Your task to perform on an android device: open app "Flipkart Online Shopping App" (install if not already installed) and go to login screen Image 0: 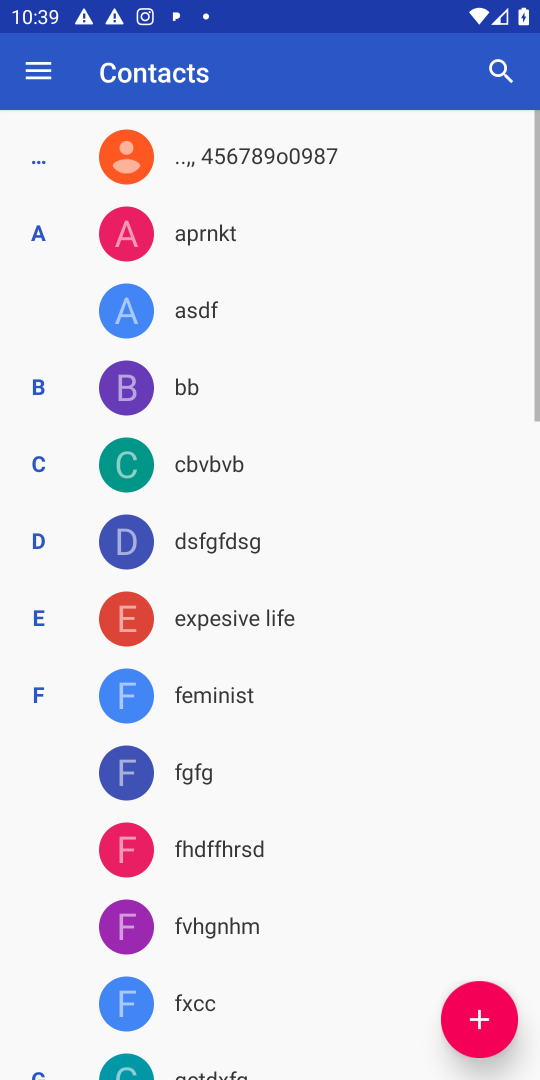
Step 0: press home button
Your task to perform on an android device: open app "Flipkart Online Shopping App" (install if not already installed) and go to login screen Image 1: 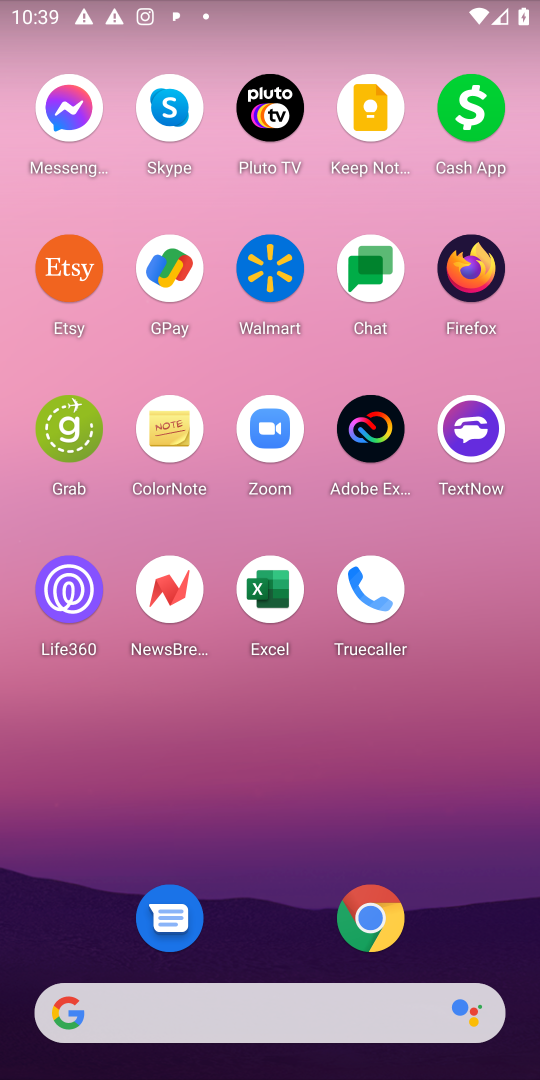
Step 1: press home button
Your task to perform on an android device: open app "Flipkart Online Shopping App" (install if not already installed) and go to login screen Image 2: 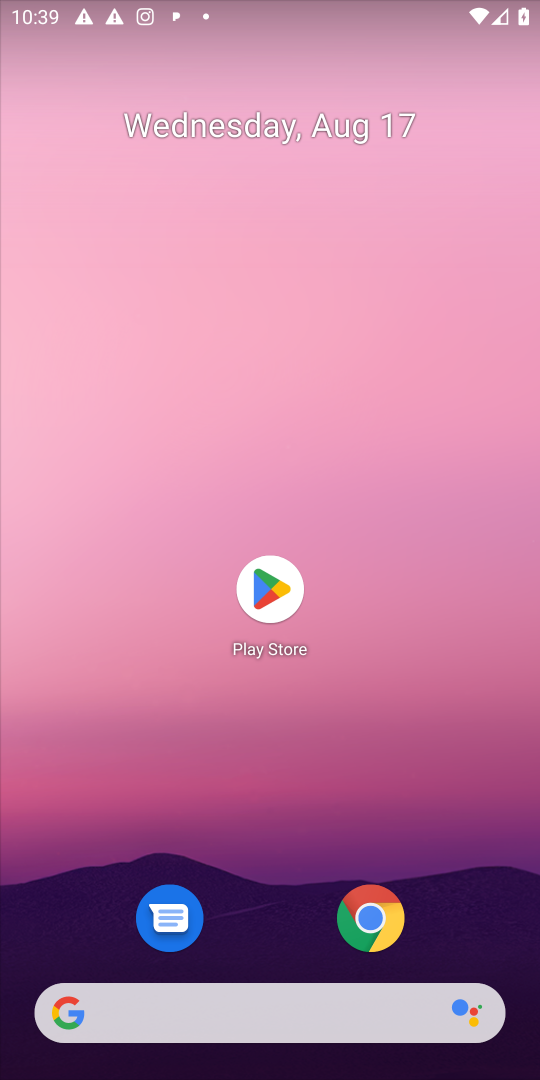
Step 2: click (268, 624)
Your task to perform on an android device: open app "Flipkart Online Shopping App" (install if not already installed) and go to login screen Image 3: 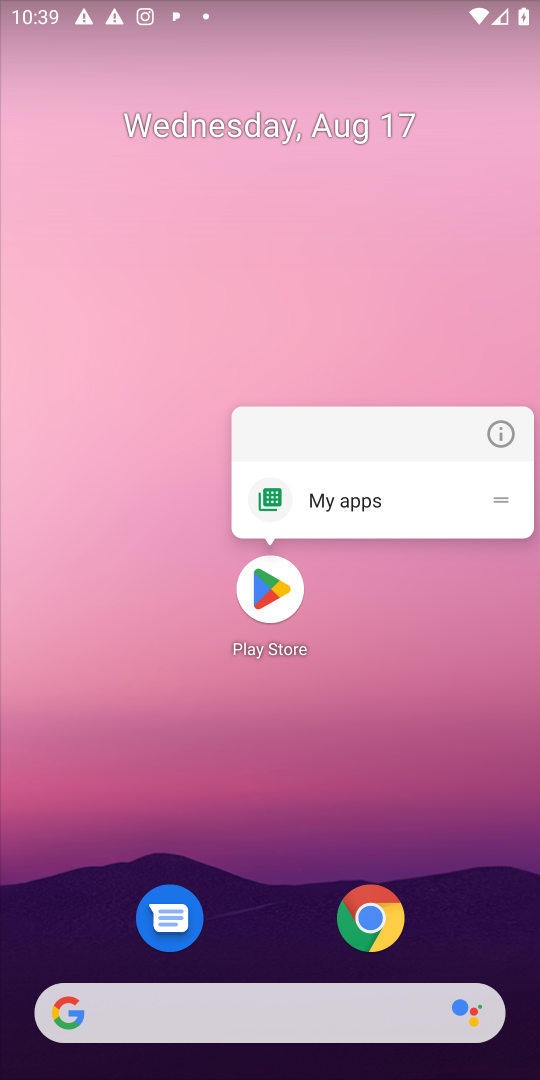
Step 3: click (273, 606)
Your task to perform on an android device: open app "Flipkart Online Shopping App" (install if not already installed) and go to login screen Image 4: 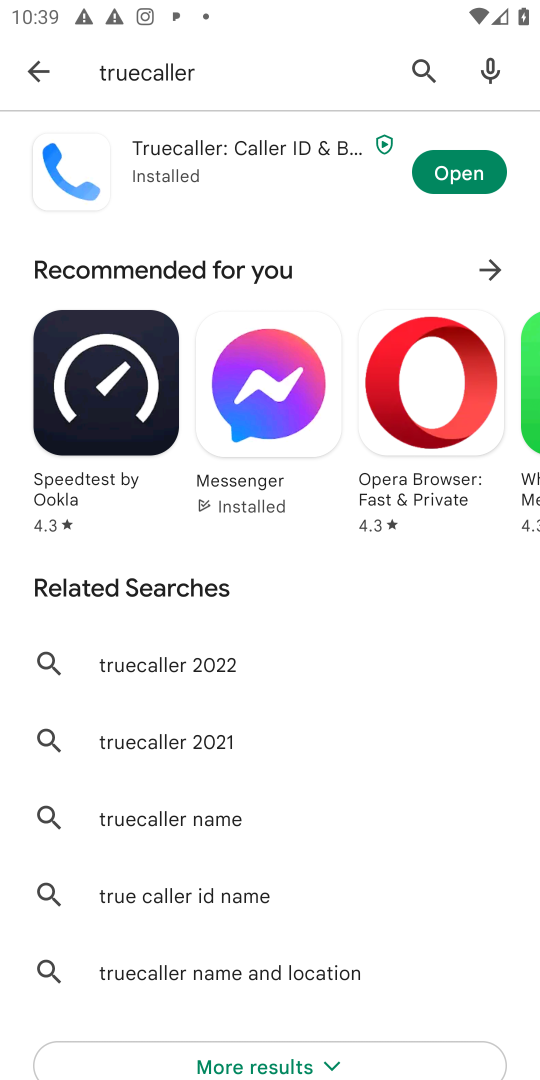
Step 4: click (429, 53)
Your task to perform on an android device: open app "Flipkart Online Shopping App" (install if not already installed) and go to login screen Image 5: 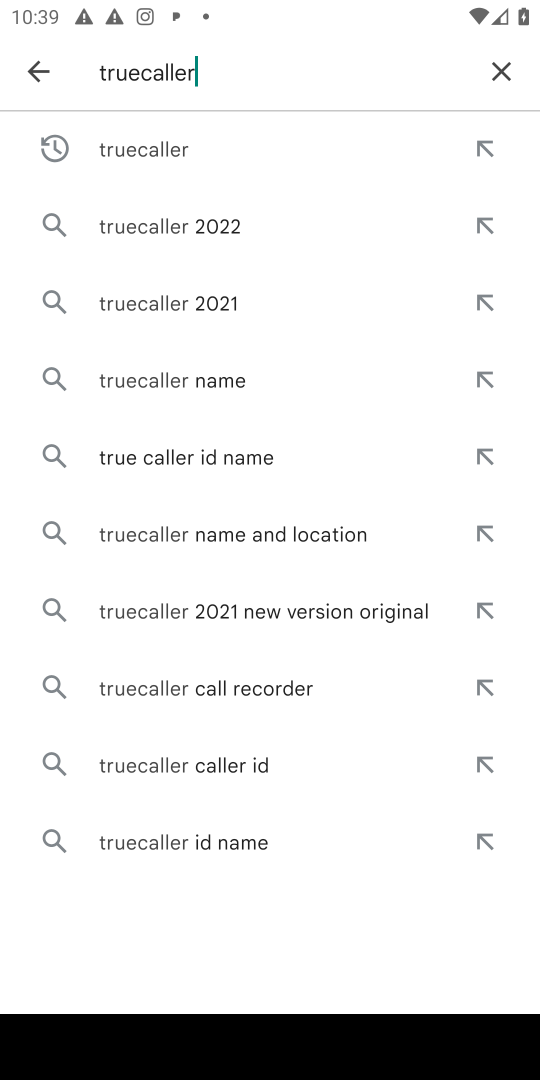
Step 5: click (496, 61)
Your task to perform on an android device: open app "Flipkart Online Shopping App" (install if not already installed) and go to login screen Image 6: 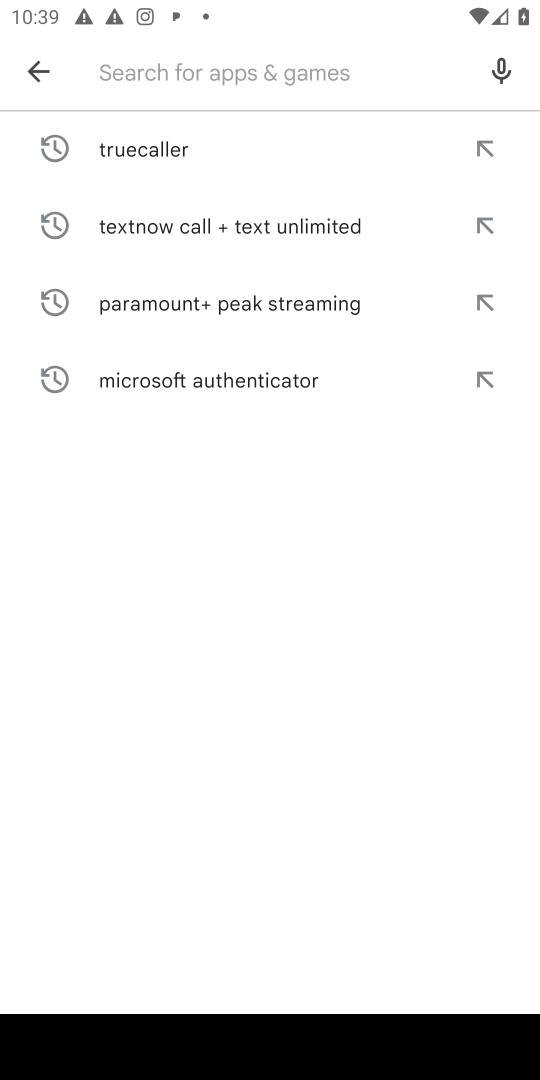
Step 6: type "Flipkart Online Shopping App"
Your task to perform on an android device: open app "Flipkart Online Shopping App" (install if not already installed) and go to login screen Image 7: 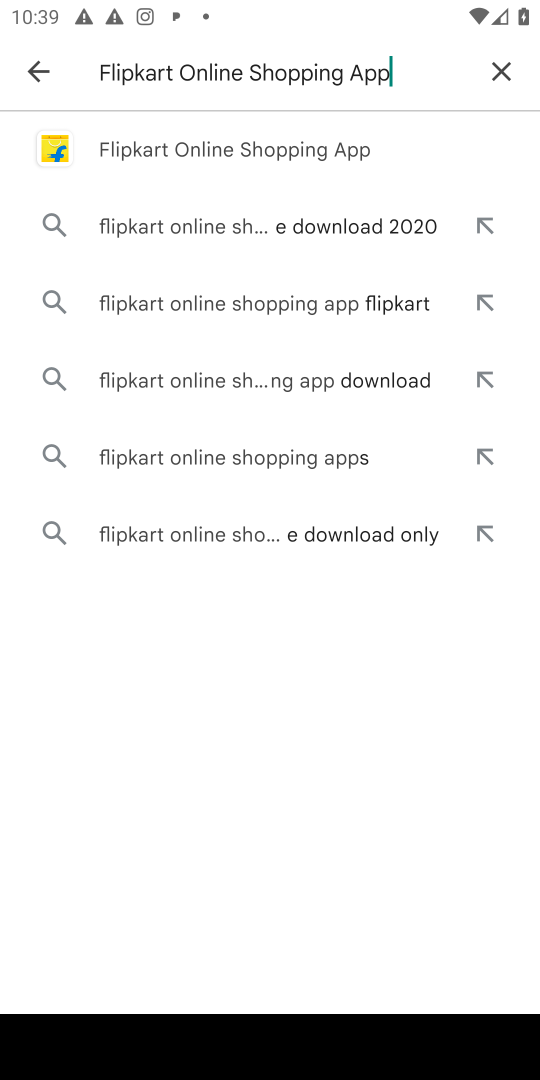
Step 7: click (290, 142)
Your task to perform on an android device: open app "Flipkart Online Shopping App" (install if not already installed) and go to login screen Image 8: 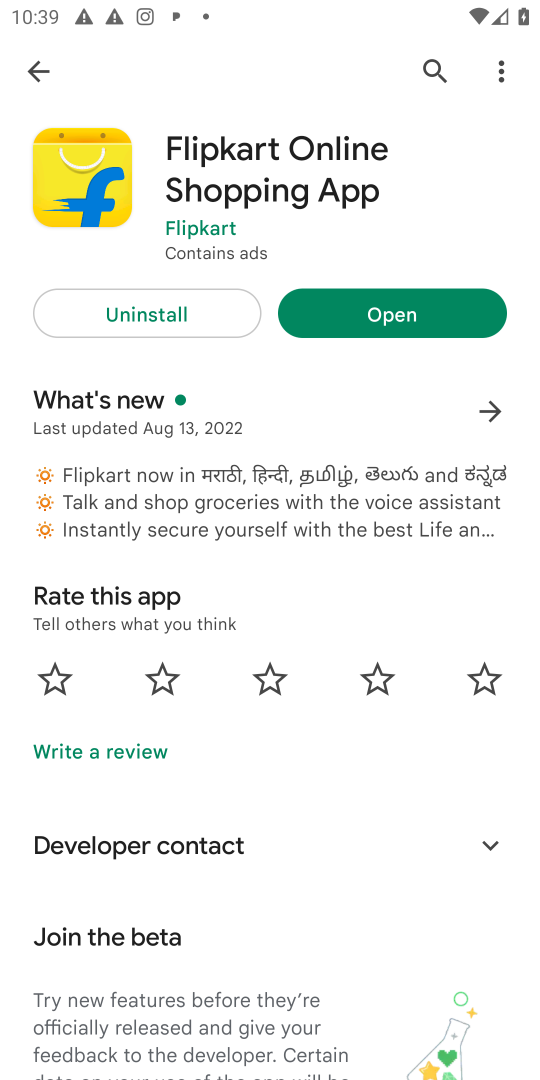
Step 8: click (388, 321)
Your task to perform on an android device: open app "Flipkart Online Shopping App" (install if not already installed) and go to login screen Image 9: 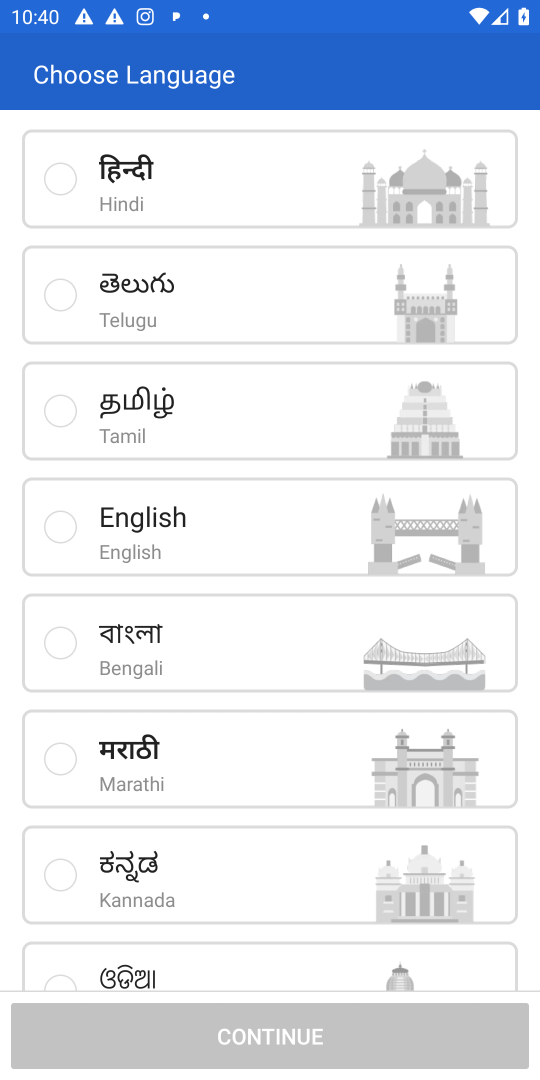
Step 9: task complete